Your task to perform on an android device: delete the emails in spam in the gmail app Image 0: 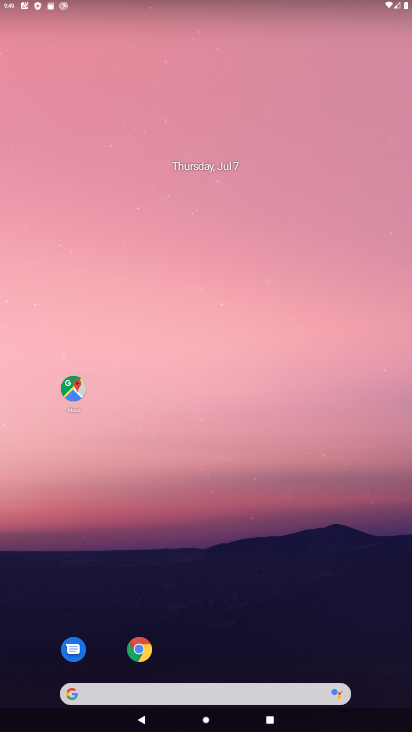
Step 0: drag from (275, 588) to (258, 199)
Your task to perform on an android device: delete the emails in spam in the gmail app Image 1: 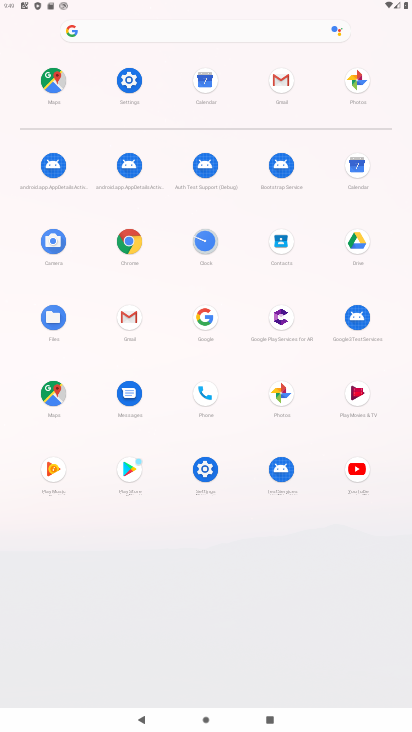
Step 1: click (133, 316)
Your task to perform on an android device: delete the emails in spam in the gmail app Image 2: 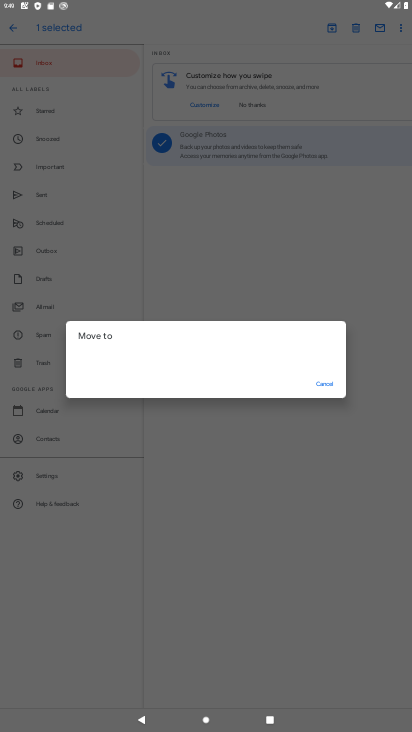
Step 2: click (317, 384)
Your task to perform on an android device: delete the emails in spam in the gmail app Image 3: 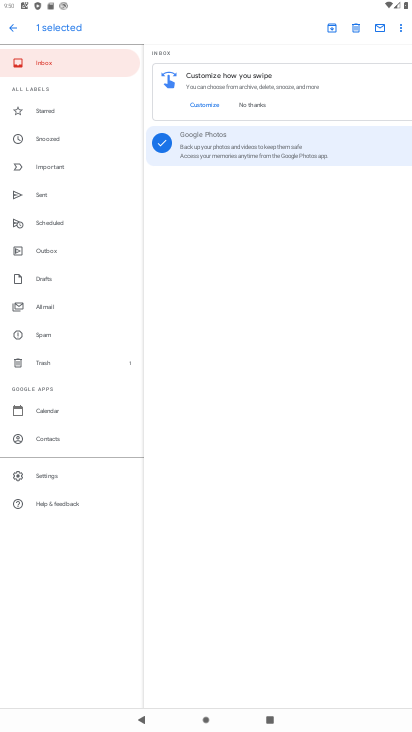
Step 3: click (41, 337)
Your task to perform on an android device: delete the emails in spam in the gmail app Image 4: 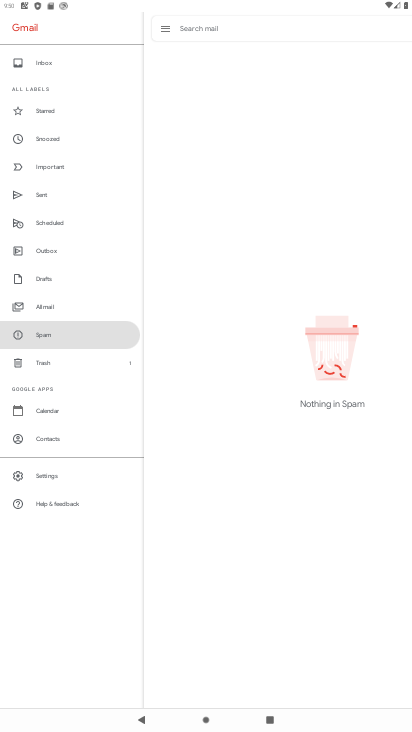
Step 4: task complete